Your task to perform on an android device: turn smart compose on in the gmail app Image 0: 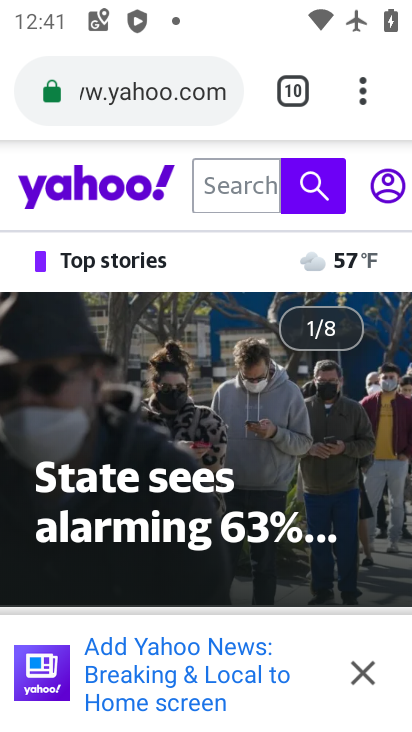
Step 0: press home button
Your task to perform on an android device: turn smart compose on in the gmail app Image 1: 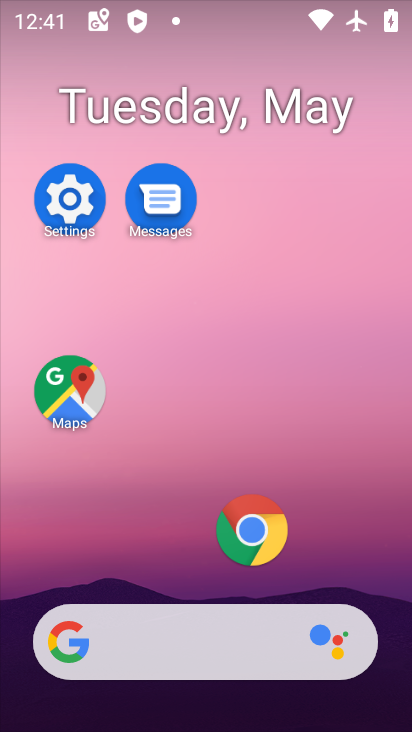
Step 1: drag from (191, 575) to (320, 117)
Your task to perform on an android device: turn smart compose on in the gmail app Image 2: 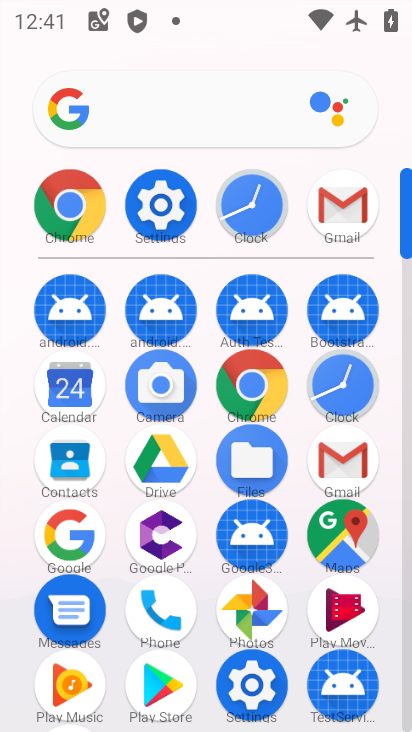
Step 2: click (338, 474)
Your task to perform on an android device: turn smart compose on in the gmail app Image 3: 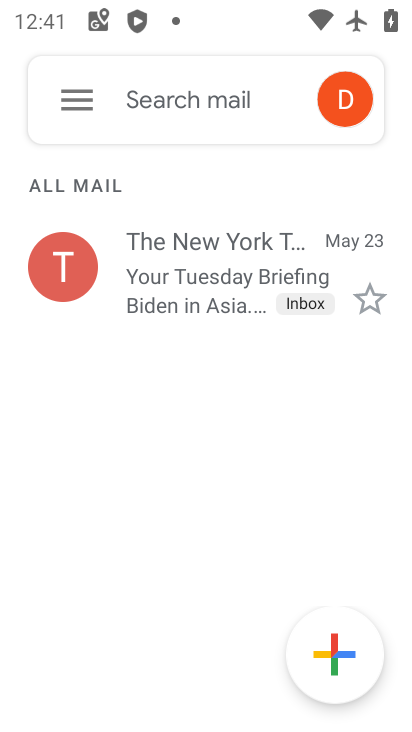
Step 3: click (57, 120)
Your task to perform on an android device: turn smart compose on in the gmail app Image 4: 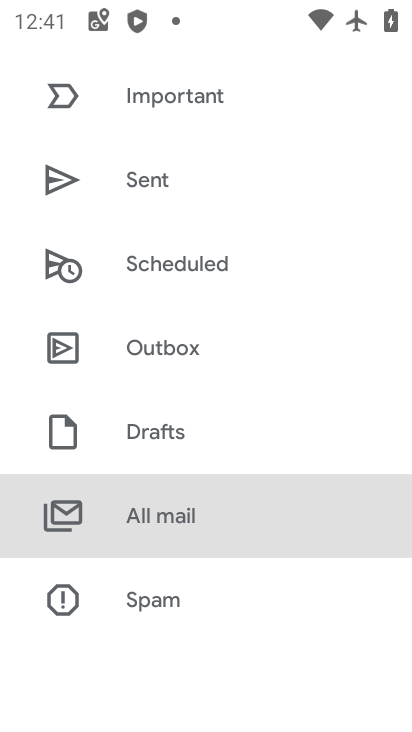
Step 4: drag from (226, 624) to (273, 233)
Your task to perform on an android device: turn smart compose on in the gmail app Image 5: 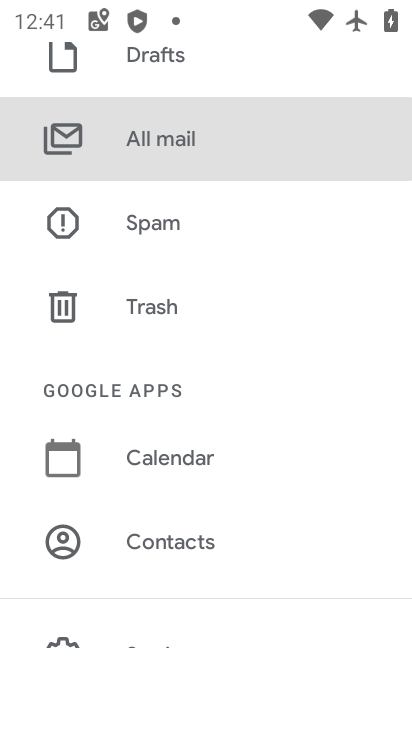
Step 5: drag from (205, 551) to (257, 219)
Your task to perform on an android device: turn smart compose on in the gmail app Image 6: 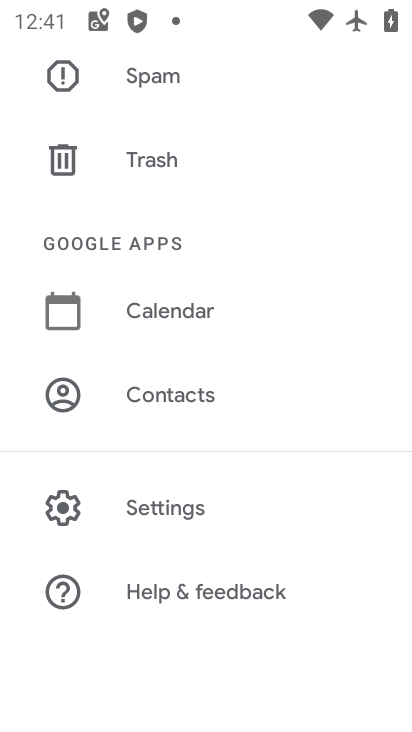
Step 6: click (210, 513)
Your task to perform on an android device: turn smart compose on in the gmail app Image 7: 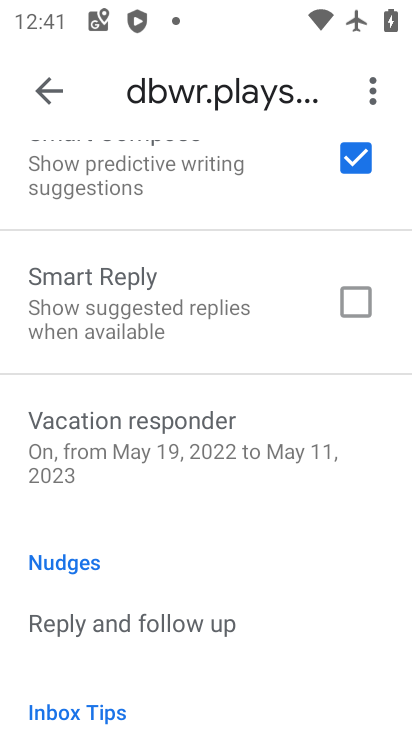
Step 7: task complete